Your task to perform on an android device: turn on priority inbox in the gmail app Image 0: 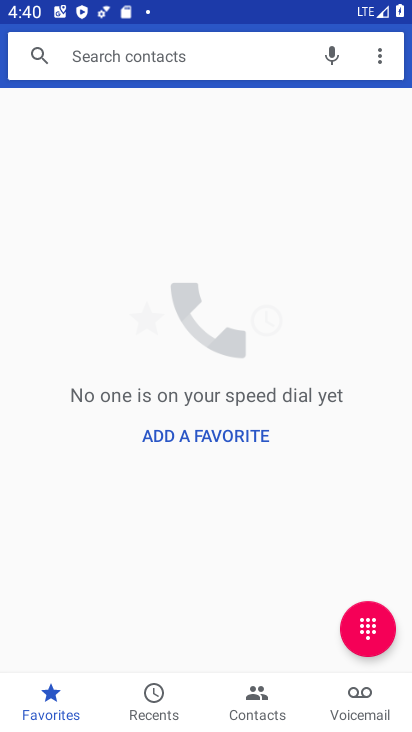
Step 0: press home button
Your task to perform on an android device: turn on priority inbox in the gmail app Image 1: 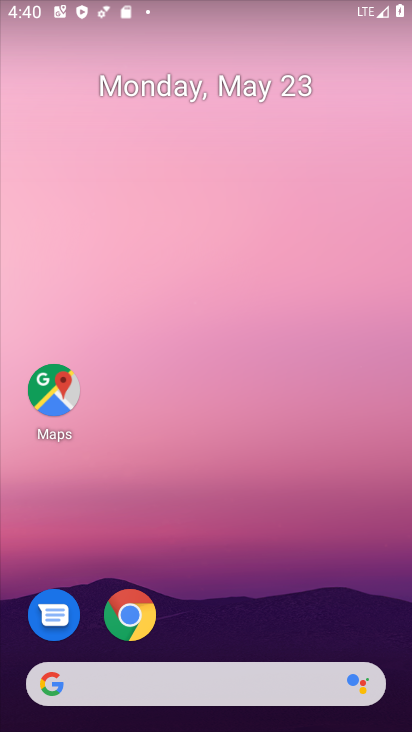
Step 1: drag from (283, 605) to (231, 15)
Your task to perform on an android device: turn on priority inbox in the gmail app Image 2: 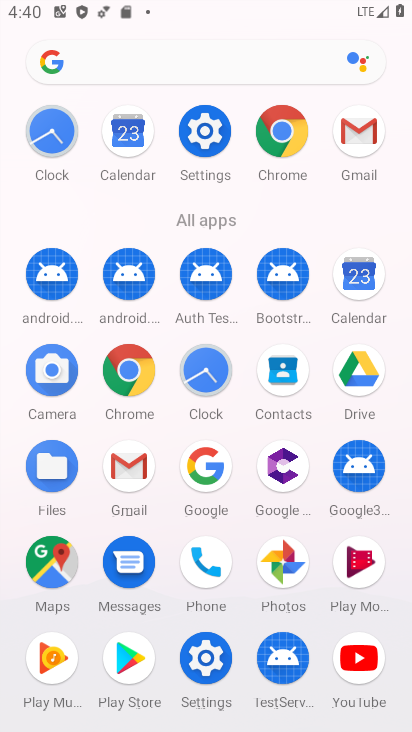
Step 2: click (356, 128)
Your task to perform on an android device: turn on priority inbox in the gmail app Image 3: 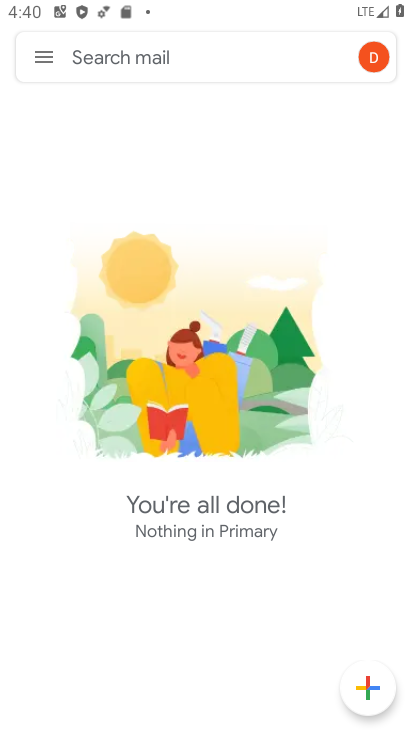
Step 3: click (42, 61)
Your task to perform on an android device: turn on priority inbox in the gmail app Image 4: 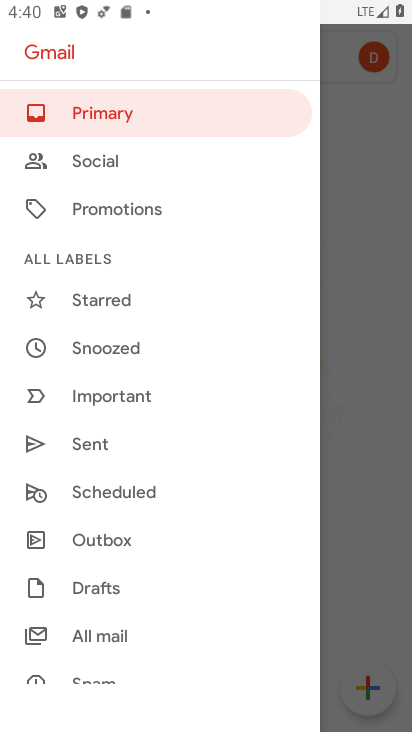
Step 4: drag from (166, 161) to (120, 707)
Your task to perform on an android device: turn on priority inbox in the gmail app Image 5: 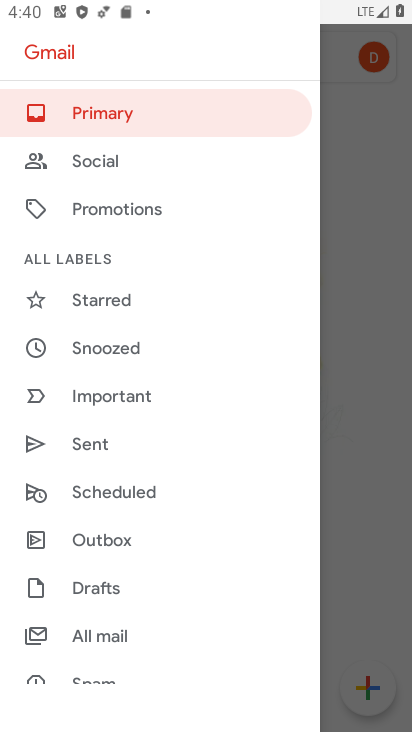
Step 5: click (92, 115)
Your task to perform on an android device: turn on priority inbox in the gmail app Image 6: 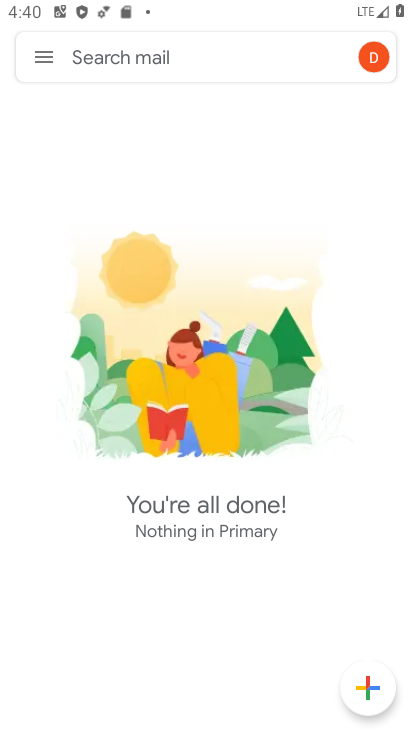
Step 6: task complete